Your task to perform on an android device: Show me the alarms in the clock app Image 0: 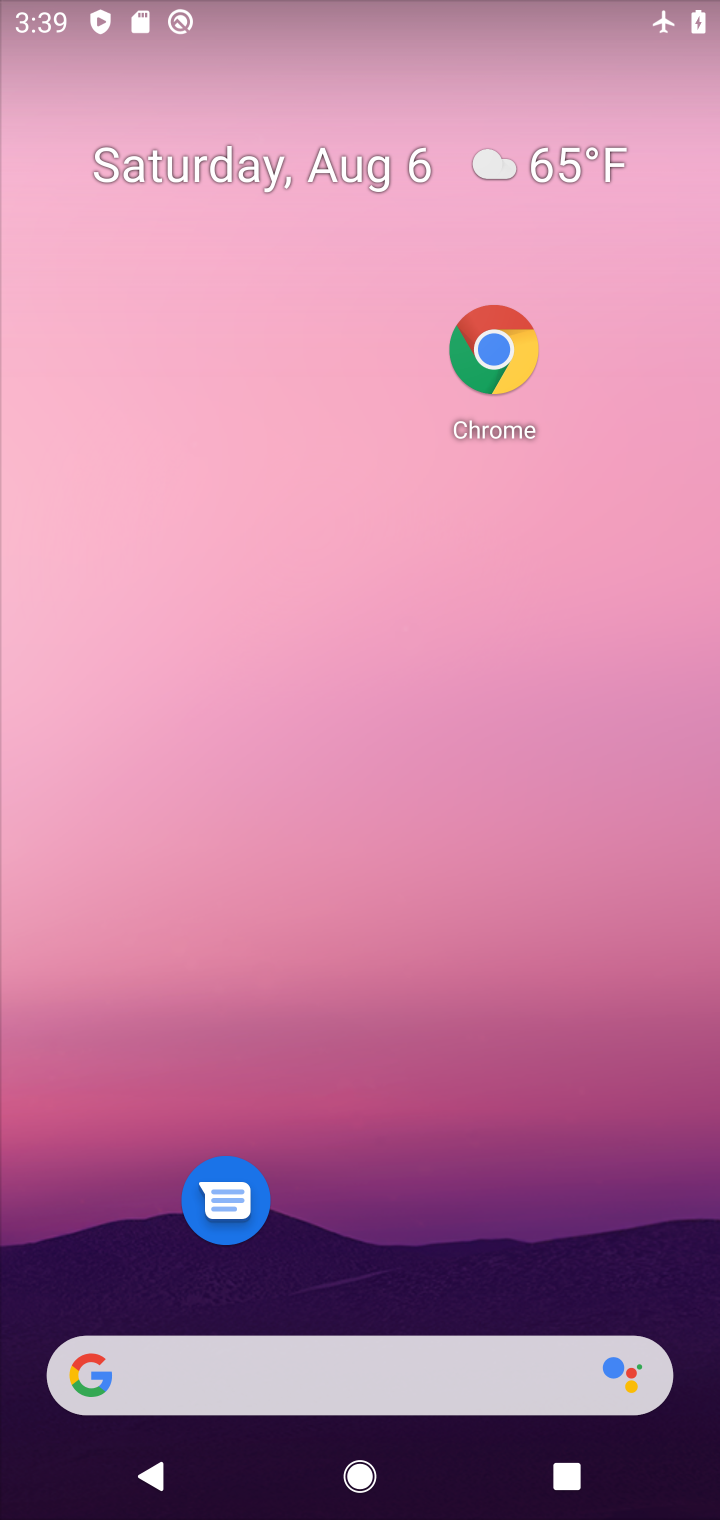
Step 0: drag from (402, 1318) to (449, 484)
Your task to perform on an android device: Show me the alarms in the clock app Image 1: 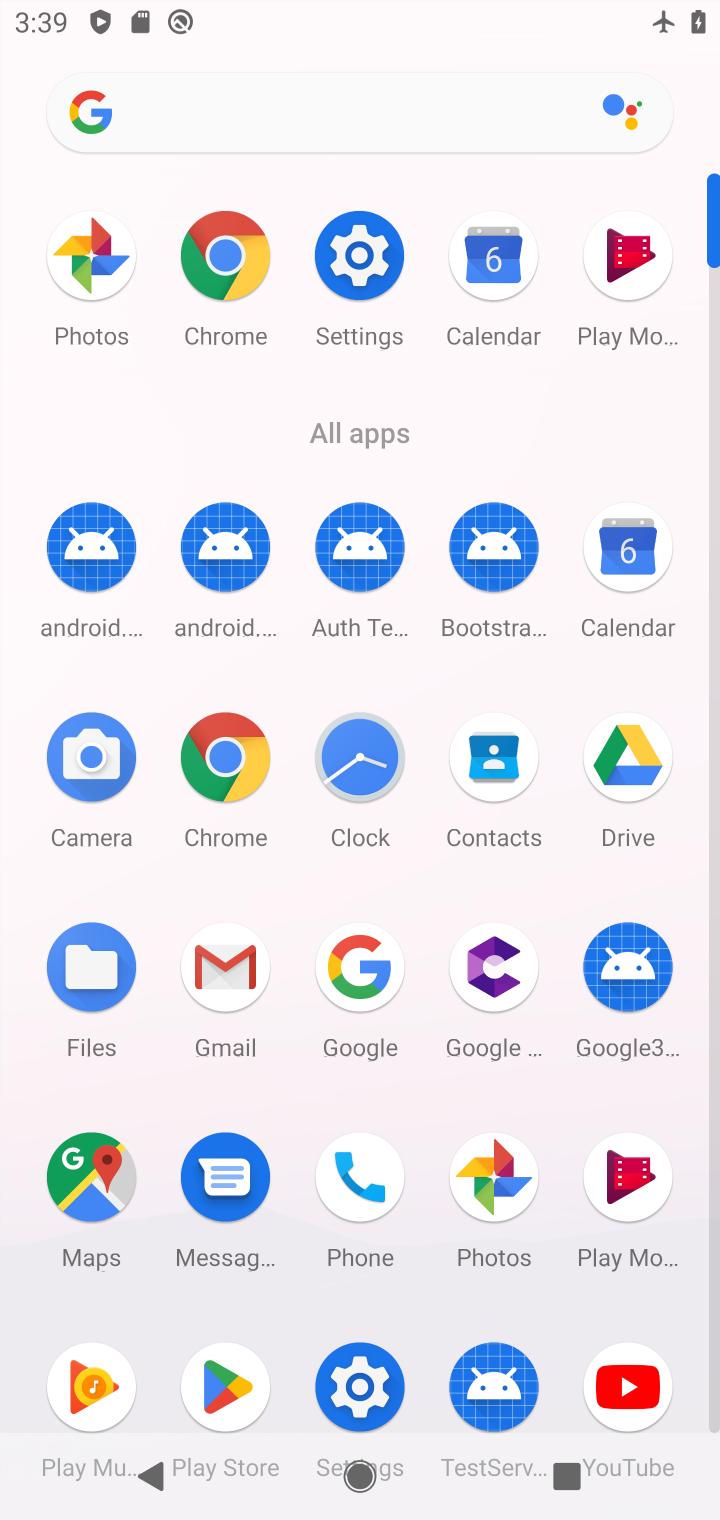
Step 1: click (382, 761)
Your task to perform on an android device: Show me the alarms in the clock app Image 2: 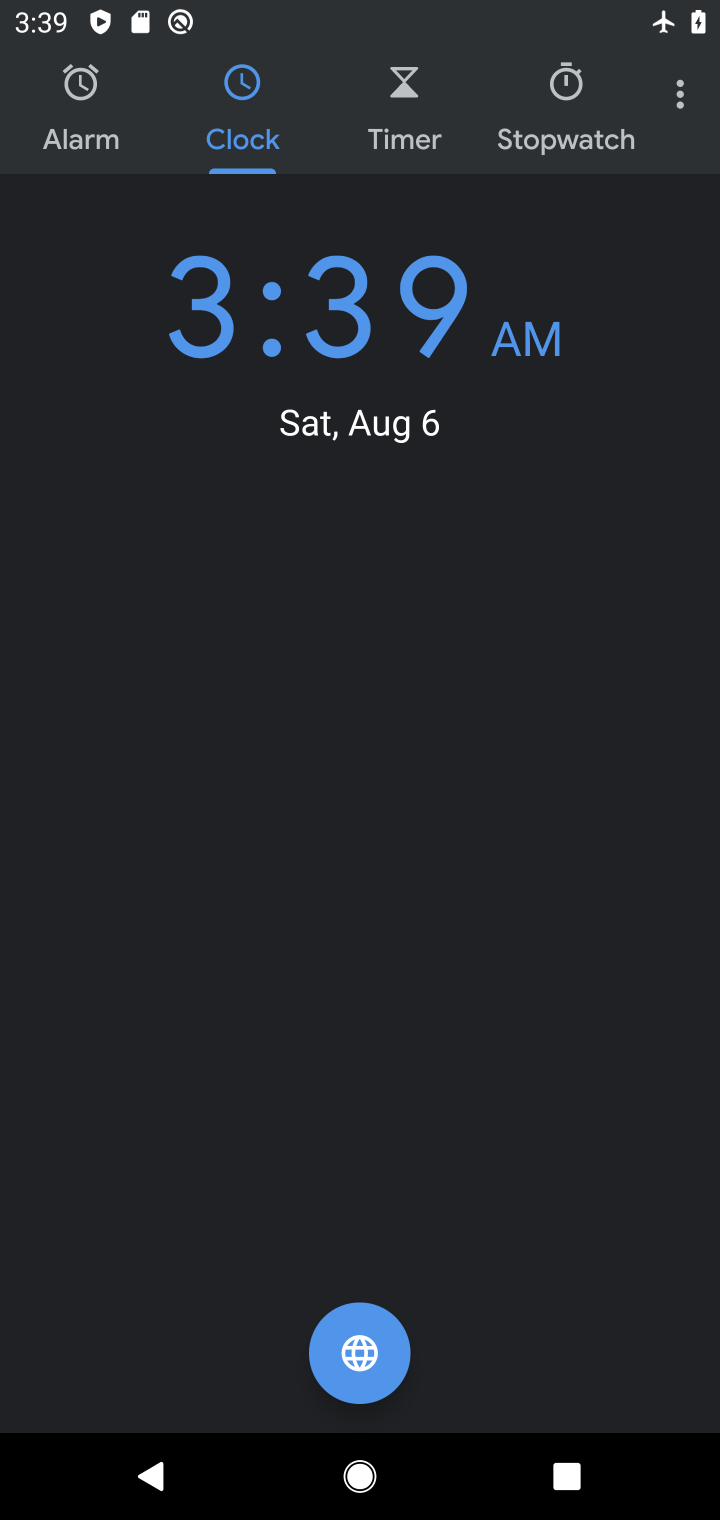
Step 2: task complete